Your task to perform on an android device: Go to Amazon Image 0: 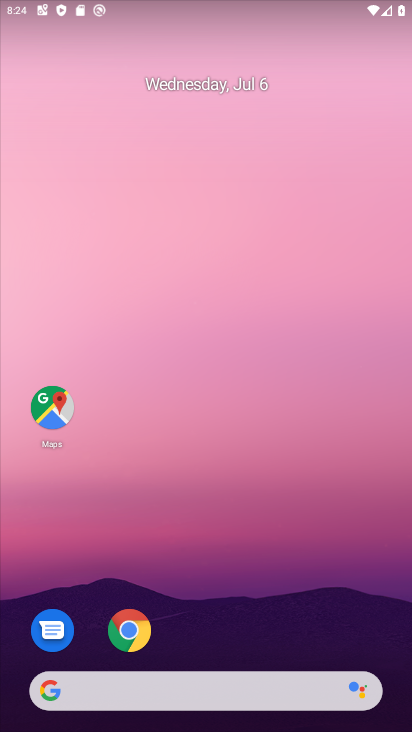
Step 0: click (132, 619)
Your task to perform on an android device: Go to Amazon Image 1: 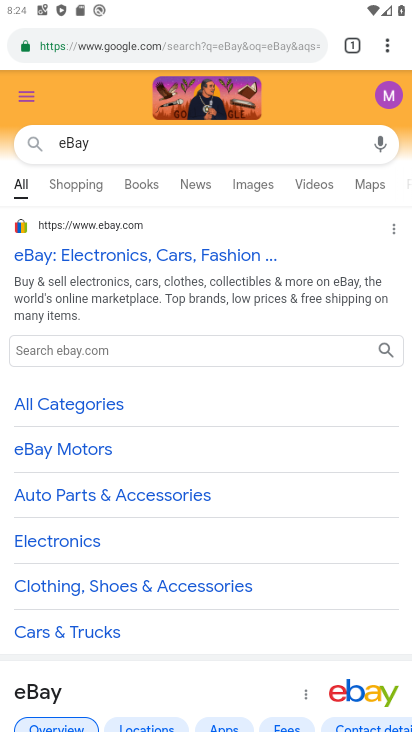
Step 1: click (283, 48)
Your task to perform on an android device: Go to Amazon Image 2: 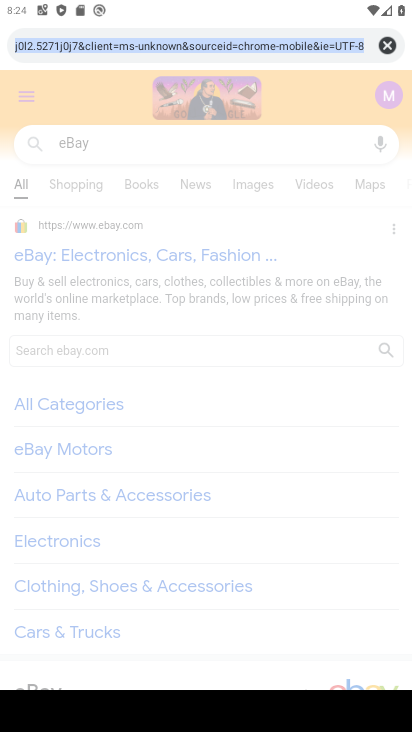
Step 2: click (378, 43)
Your task to perform on an android device: Go to Amazon Image 3: 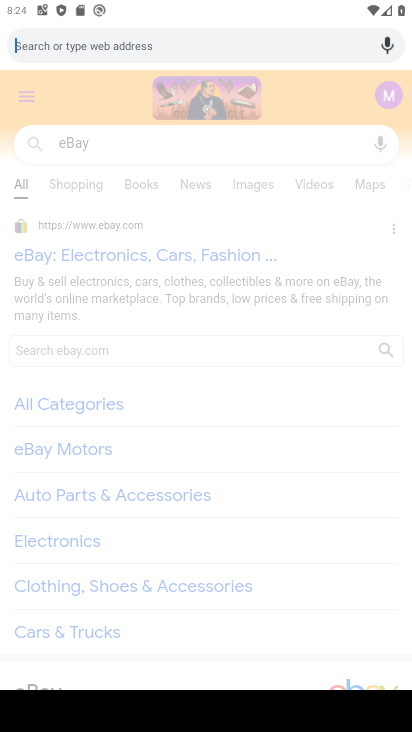
Step 3: type " Amazon"
Your task to perform on an android device: Go to Amazon Image 4: 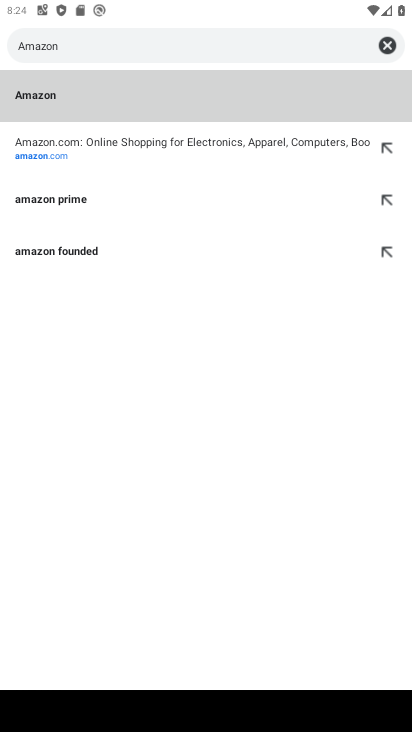
Step 4: click (52, 92)
Your task to perform on an android device: Go to Amazon Image 5: 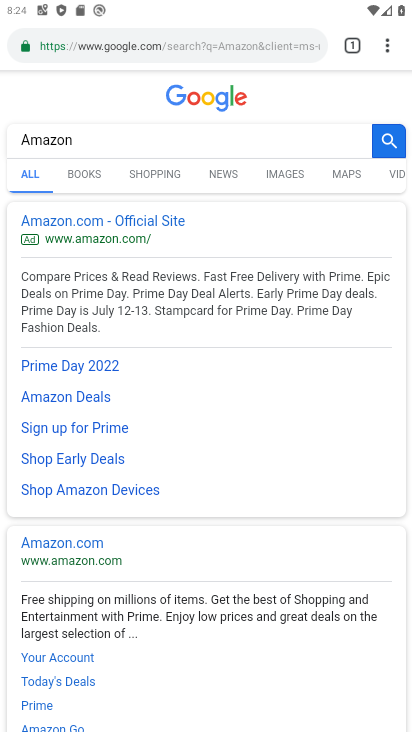
Step 5: task complete